Your task to perform on an android device: check battery use Image 0: 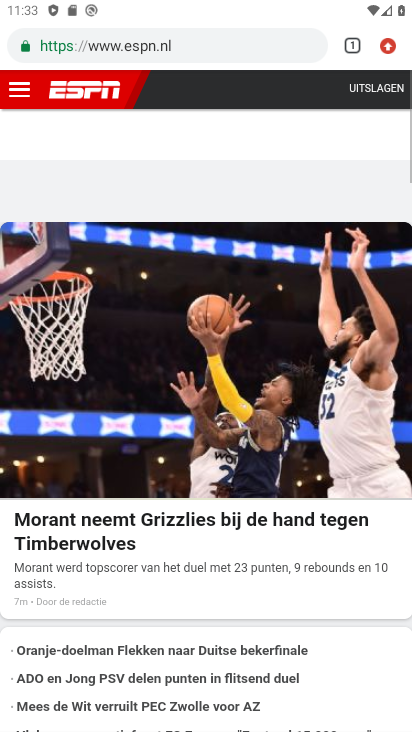
Step 0: press home button
Your task to perform on an android device: check battery use Image 1: 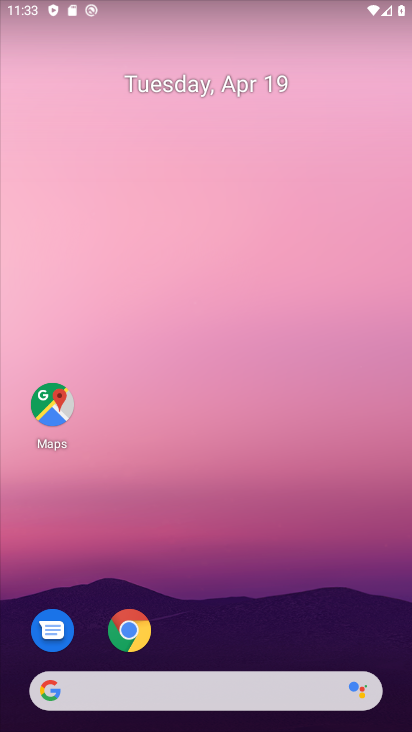
Step 1: drag from (305, 599) to (336, 78)
Your task to perform on an android device: check battery use Image 2: 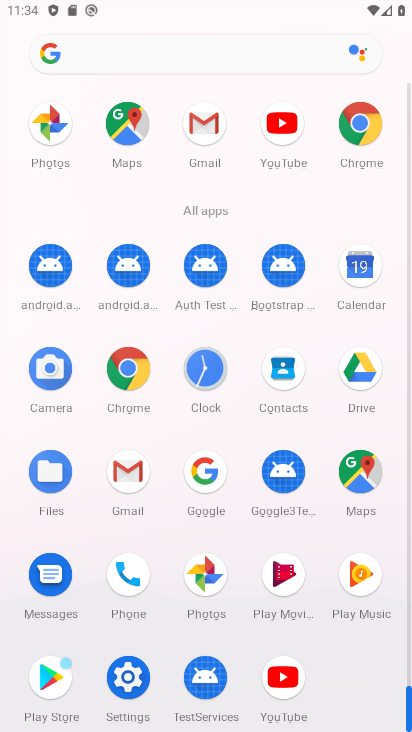
Step 2: drag from (246, 238) to (228, 0)
Your task to perform on an android device: check battery use Image 3: 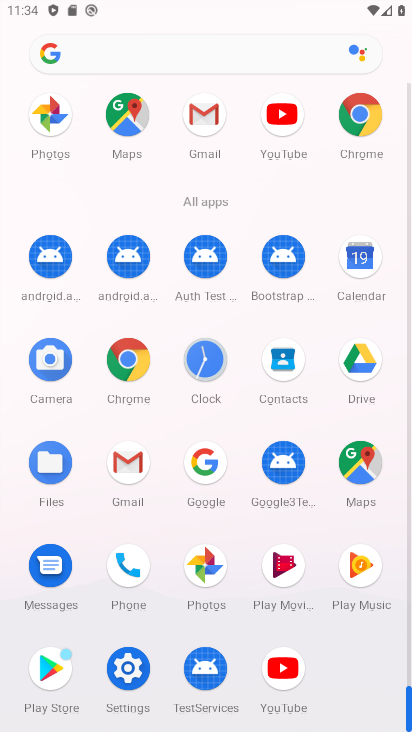
Step 3: click (129, 667)
Your task to perform on an android device: check battery use Image 4: 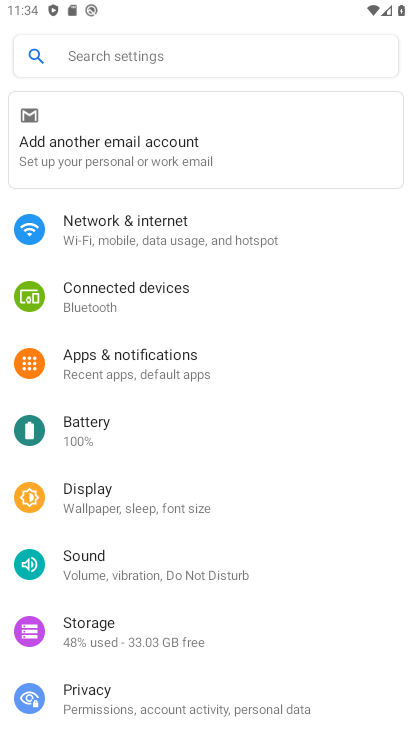
Step 4: click (75, 418)
Your task to perform on an android device: check battery use Image 5: 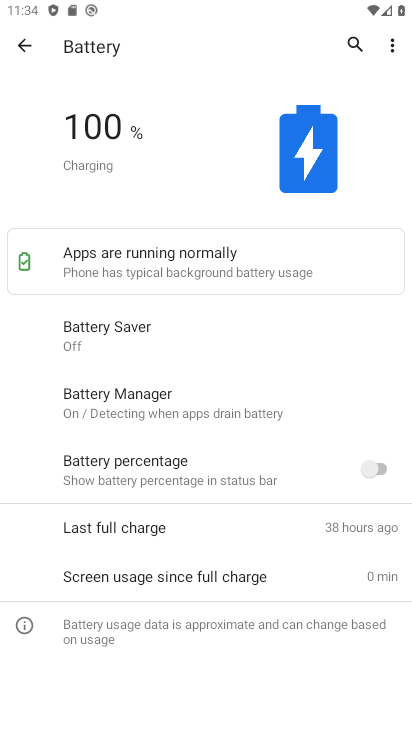
Step 5: task complete